Your task to perform on an android device: find snoozed emails in the gmail app Image 0: 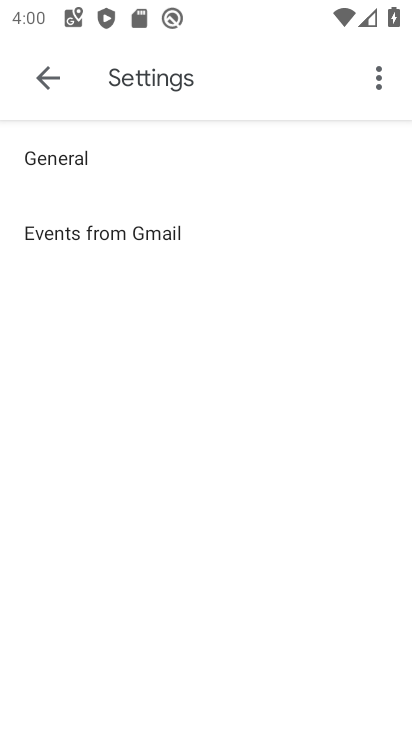
Step 0: press home button
Your task to perform on an android device: find snoozed emails in the gmail app Image 1: 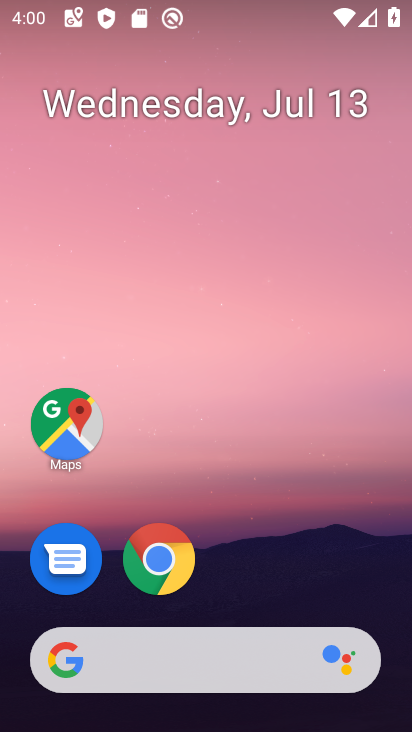
Step 1: drag from (351, 607) to (267, 72)
Your task to perform on an android device: find snoozed emails in the gmail app Image 2: 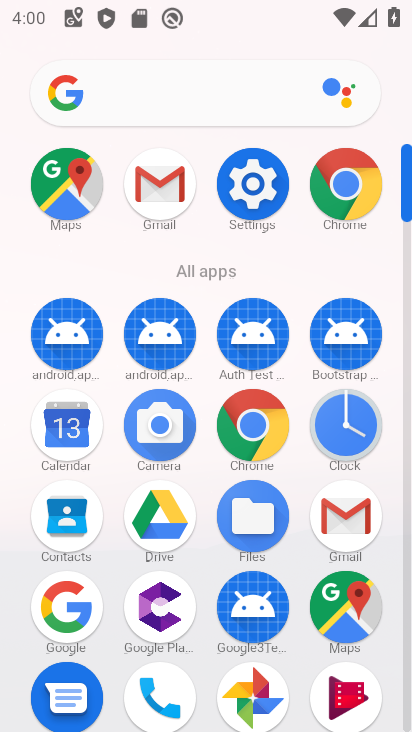
Step 2: click (163, 192)
Your task to perform on an android device: find snoozed emails in the gmail app Image 3: 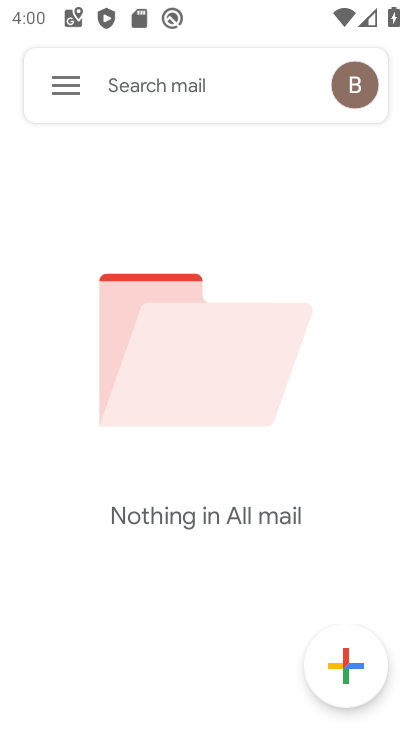
Step 3: click (52, 80)
Your task to perform on an android device: find snoozed emails in the gmail app Image 4: 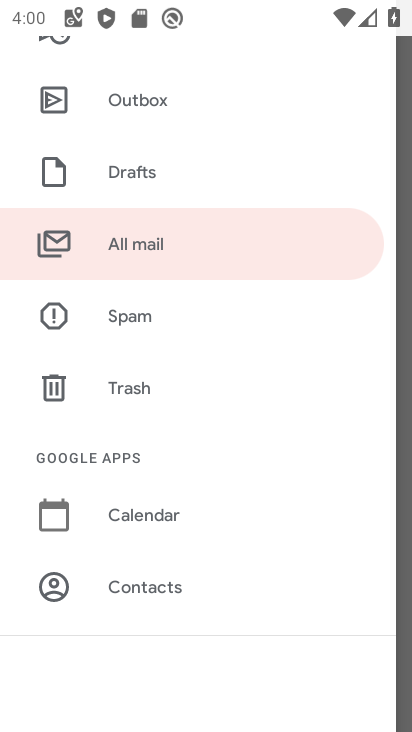
Step 4: drag from (194, 172) to (225, 614)
Your task to perform on an android device: find snoozed emails in the gmail app Image 5: 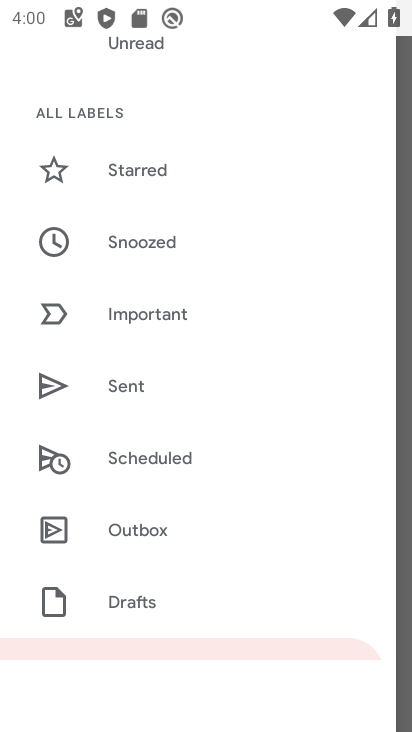
Step 5: click (205, 231)
Your task to perform on an android device: find snoozed emails in the gmail app Image 6: 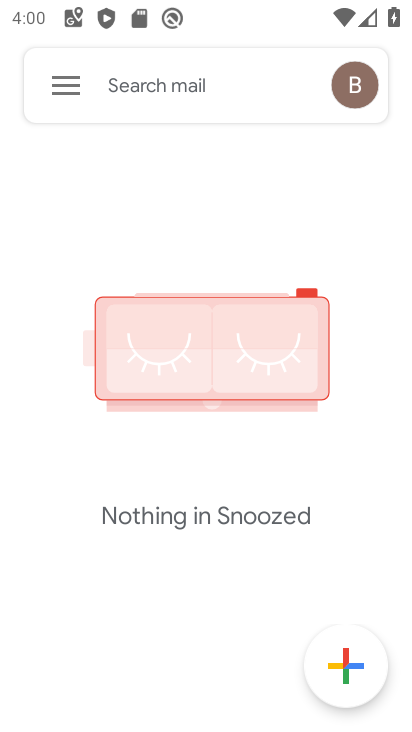
Step 6: task complete